Your task to perform on an android device: create a new album in the google photos Image 0: 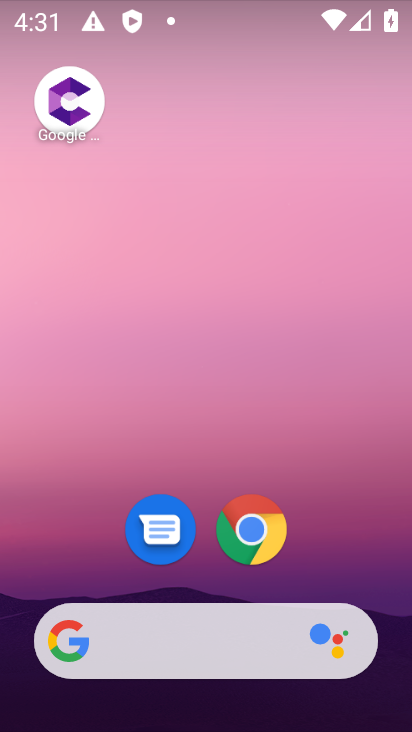
Step 0: drag from (208, 459) to (206, 53)
Your task to perform on an android device: create a new album in the google photos Image 1: 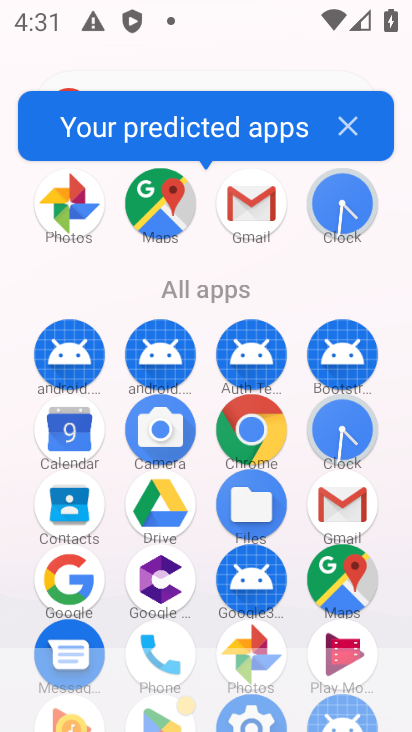
Step 1: click (76, 224)
Your task to perform on an android device: create a new album in the google photos Image 2: 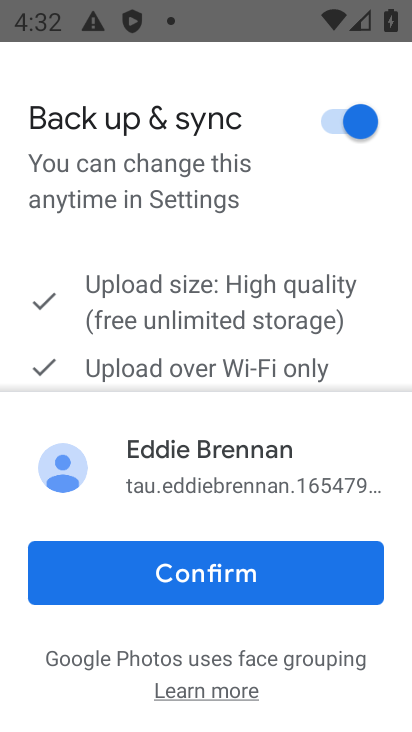
Step 2: click (154, 617)
Your task to perform on an android device: create a new album in the google photos Image 3: 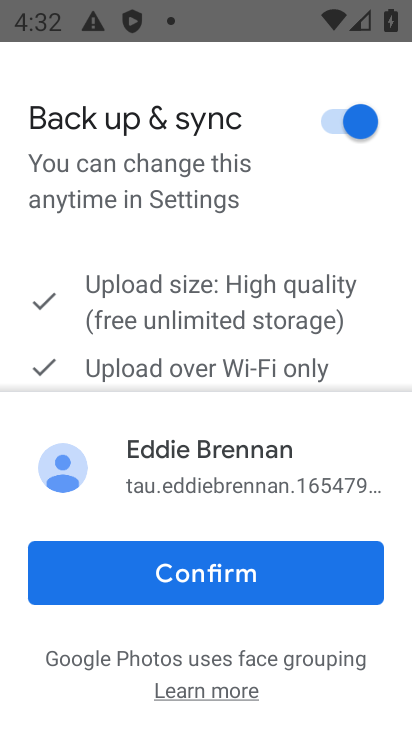
Step 3: click (161, 577)
Your task to perform on an android device: create a new album in the google photos Image 4: 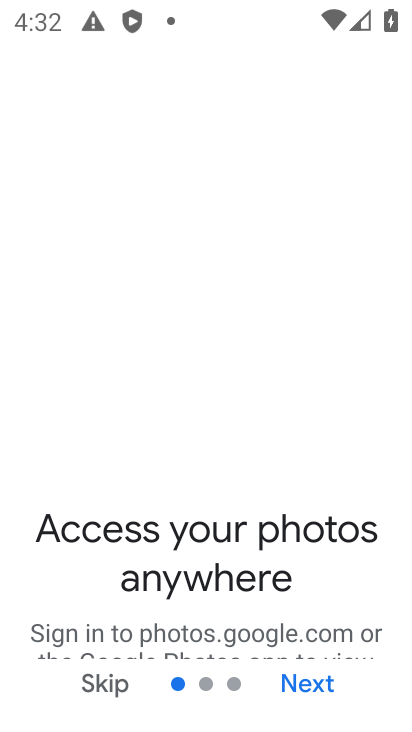
Step 4: click (95, 683)
Your task to perform on an android device: create a new album in the google photos Image 5: 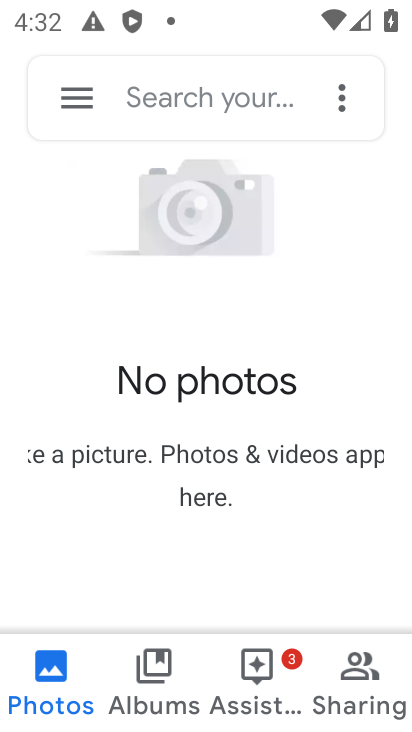
Step 5: click (346, 99)
Your task to perform on an android device: create a new album in the google photos Image 6: 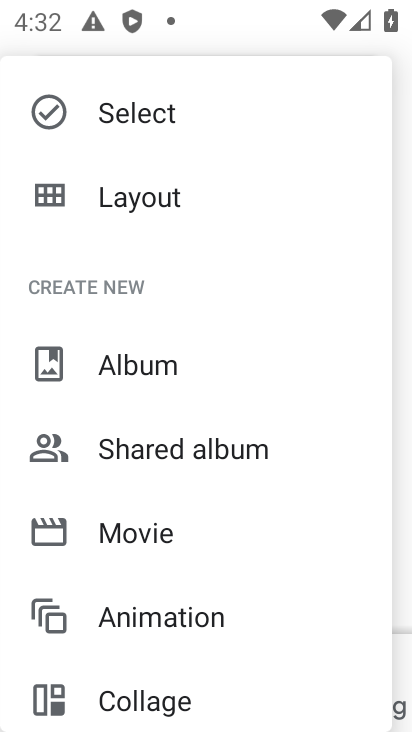
Step 6: click (162, 361)
Your task to perform on an android device: create a new album in the google photos Image 7: 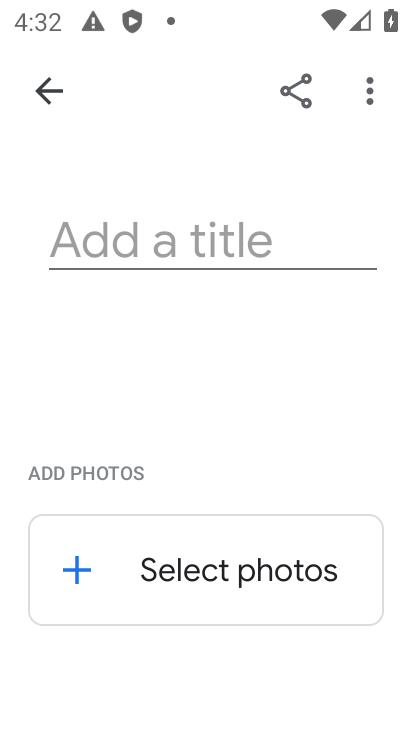
Step 7: click (120, 237)
Your task to perform on an android device: create a new album in the google photos Image 8: 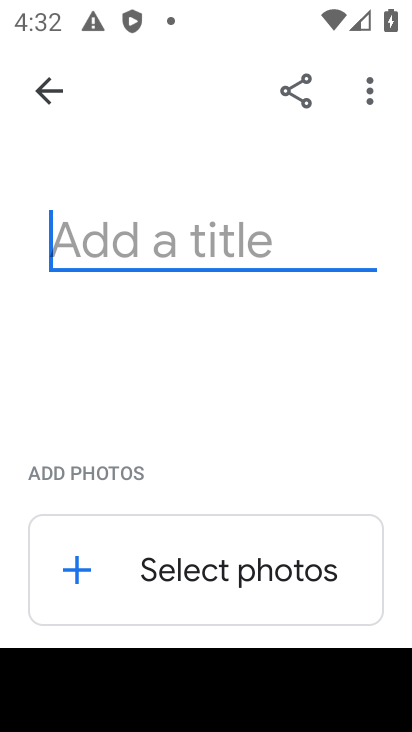
Step 8: type "gjgjg"
Your task to perform on an android device: create a new album in the google photos Image 9: 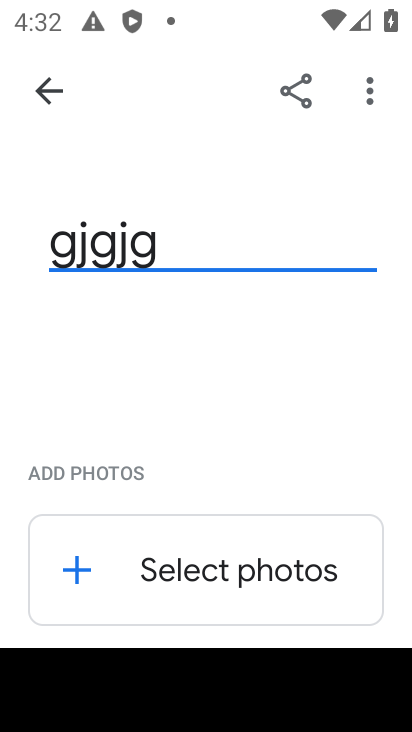
Step 9: click (74, 563)
Your task to perform on an android device: create a new album in the google photos Image 10: 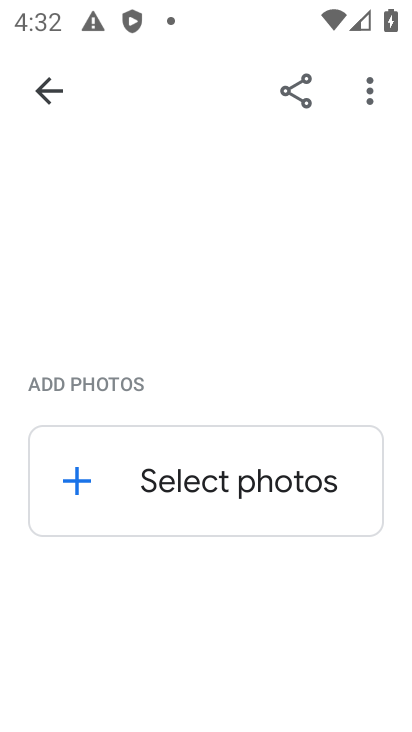
Step 10: task complete